Your task to perform on an android device: What's the weather today? Image 0: 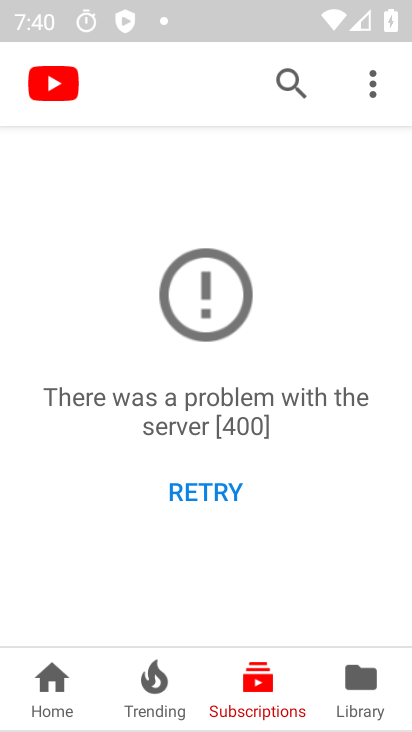
Step 0: press home button
Your task to perform on an android device: What's the weather today? Image 1: 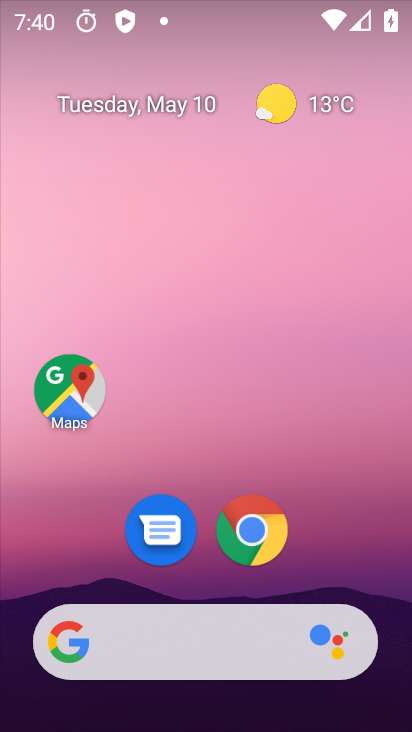
Step 1: click (340, 109)
Your task to perform on an android device: What's the weather today? Image 2: 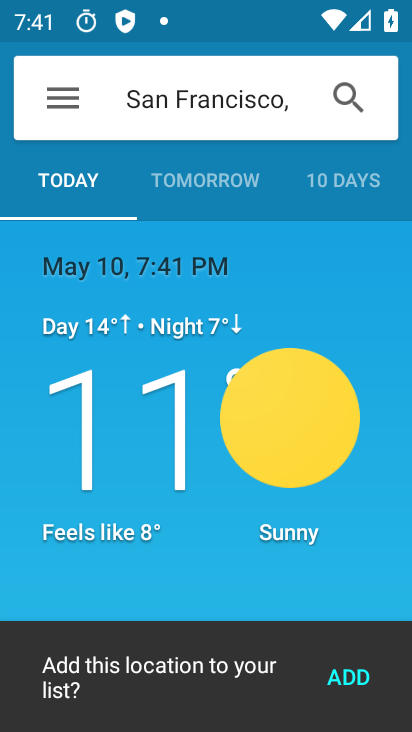
Step 2: task complete